Your task to perform on an android device: open a bookmark in the chrome app Image 0: 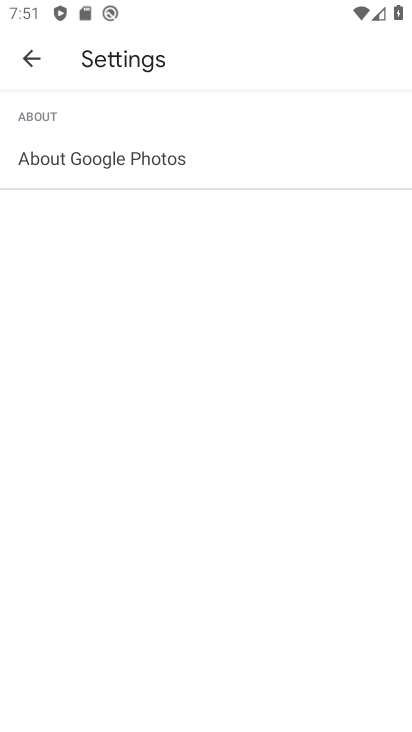
Step 0: press home button
Your task to perform on an android device: open a bookmark in the chrome app Image 1: 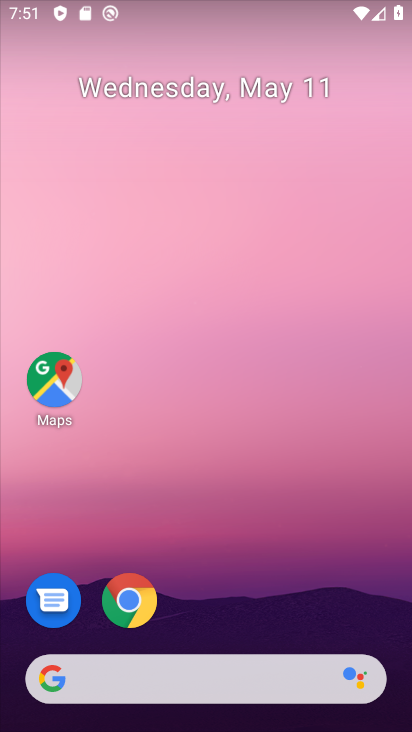
Step 1: click (143, 606)
Your task to perform on an android device: open a bookmark in the chrome app Image 2: 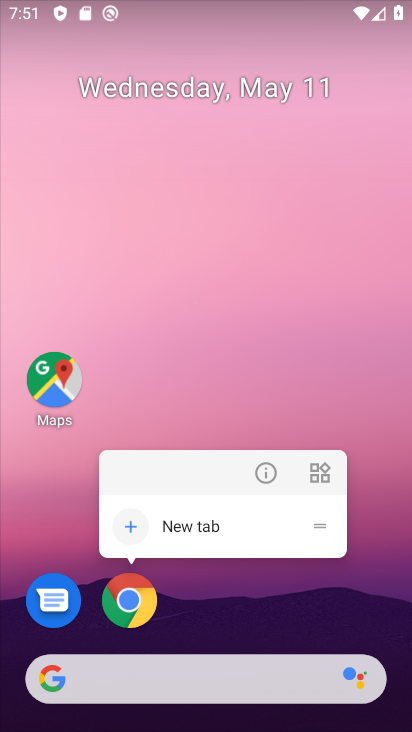
Step 2: click (145, 605)
Your task to perform on an android device: open a bookmark in the chrome app Image 3: 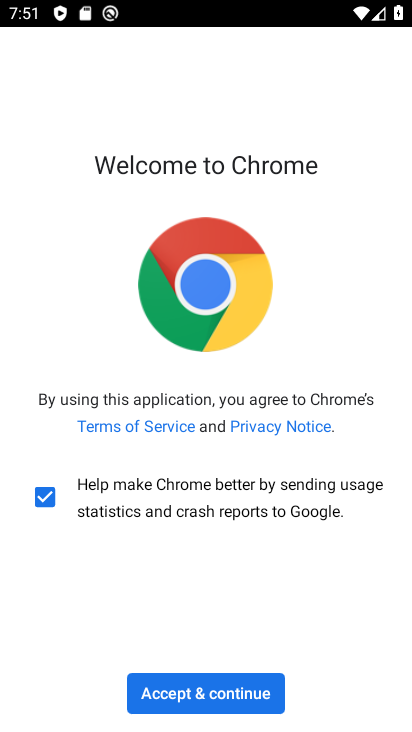
Step 3: click (251, 695)
Your task to perform on an android device: open a bookmark in the chrome app Image 4: 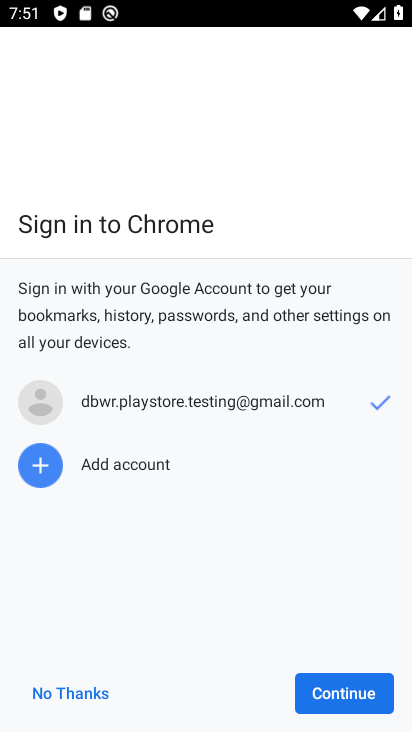
Step 4: click (314, 694)
Your task to perform on an android device: open a bookmark in the chrome app Image 5: 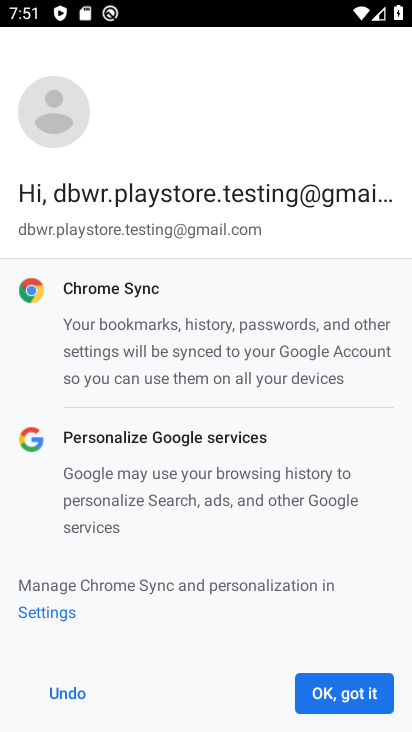
Step 5: click (314, 694)
Your task to perform on an android device: open a bookmark in the chrome app Image 6: 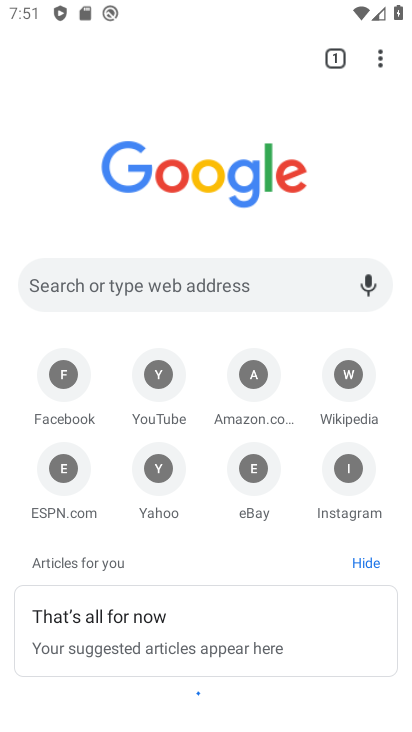
Step 6: click (377, 59)
Your task to perform on an android device: open a bookmark in the chrome app Image 7: 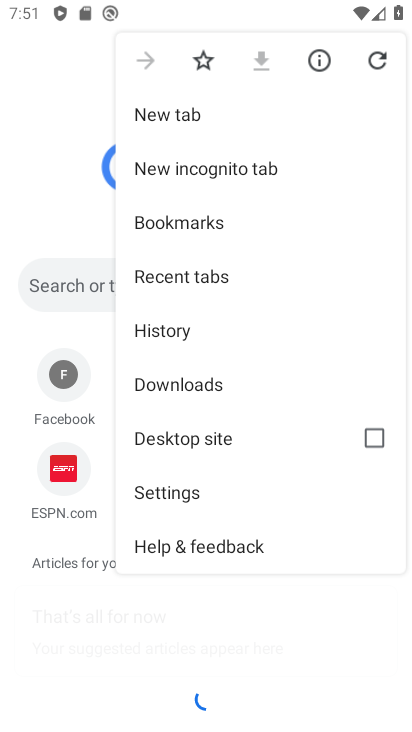
Step 7: click (217, 221)
Your task to perform on an android device: open a bookmark in the chrome app Image 8: 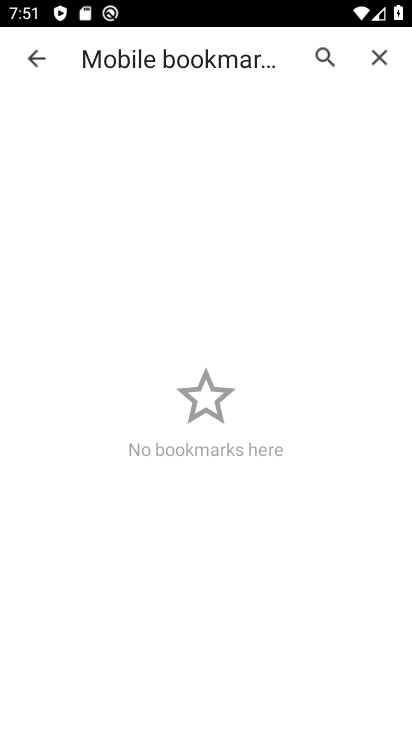
Step 8: task complete